Your task to perform on an android device: show emergency info Image 0: 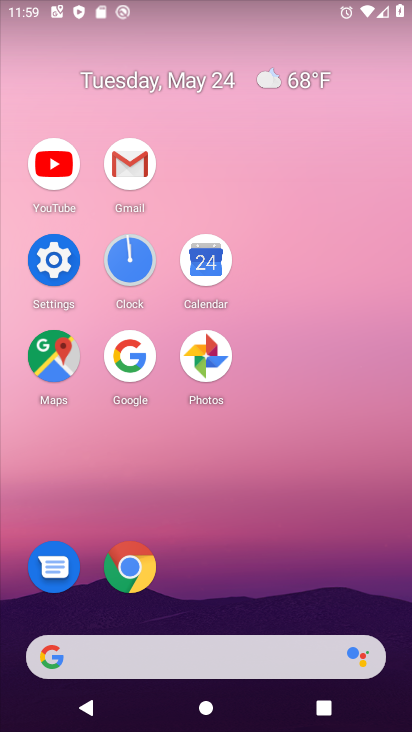
Step 0: click (54, 249)
Your task to perform on an android device: show emergency info Image 1: 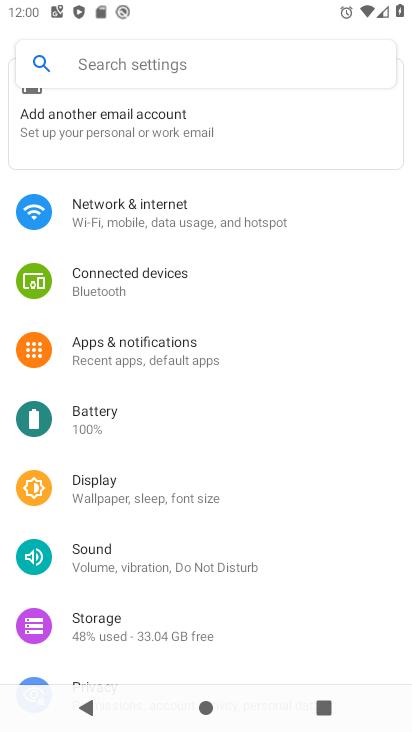
Step 1: drag from (251, 612) to (268, 122)
Your task to perform on an android device: show emergency info Image 2: 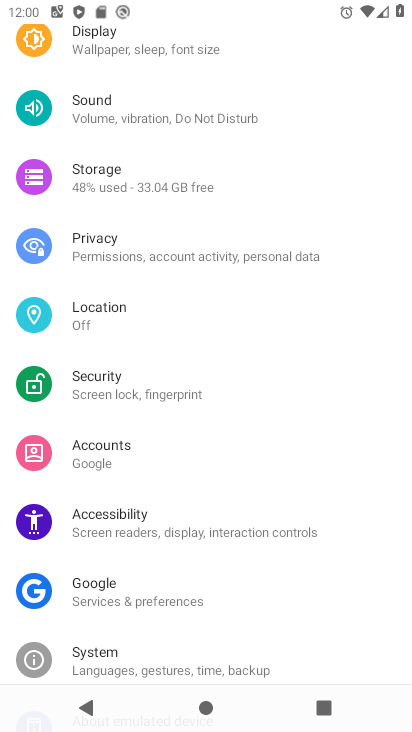
Step 2: drag from (243, 667) to (251, 209)
Your task to perform on an android device: show emergency info Image 3: 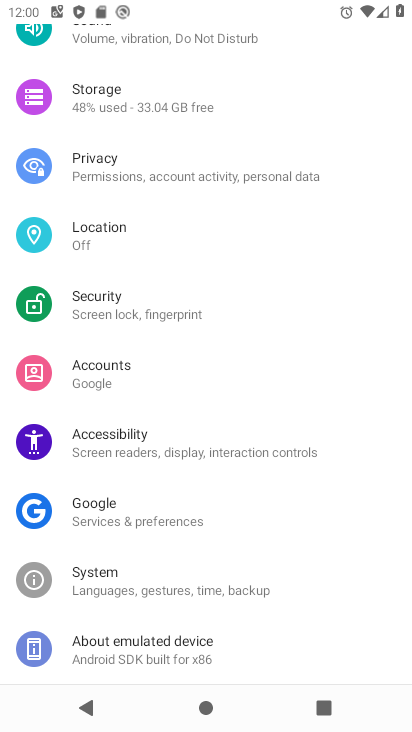
Step 3: click (172, 652)
Your task to perform on an android device: show emergency info Image 4: 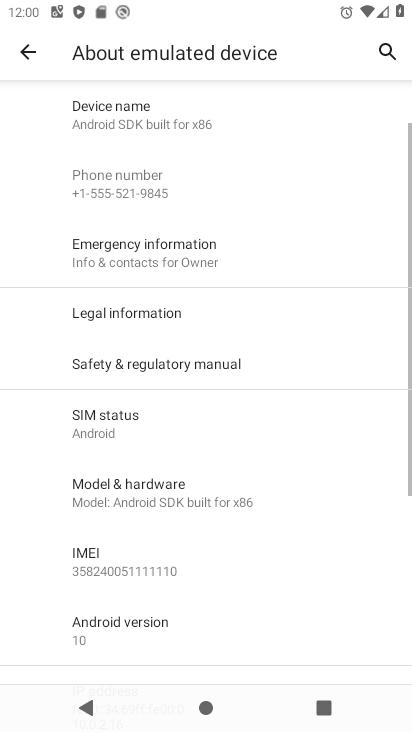
Step 4: click (185, 255)
Your task to perform on an android device: show emergency info Image 5: 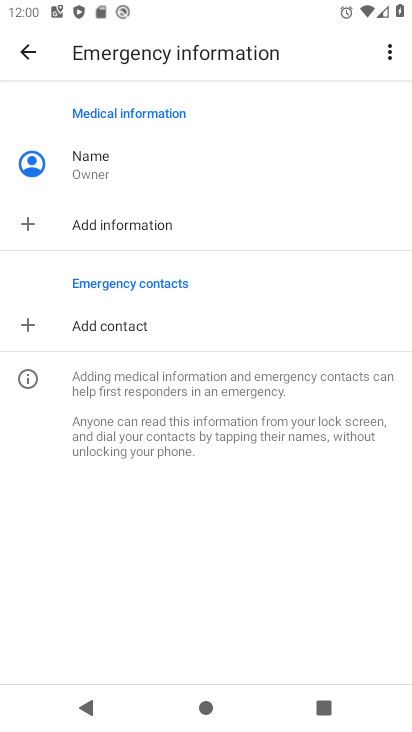
Step 5: task complete